Your task to perform on an android device: Go to Google Image 0: 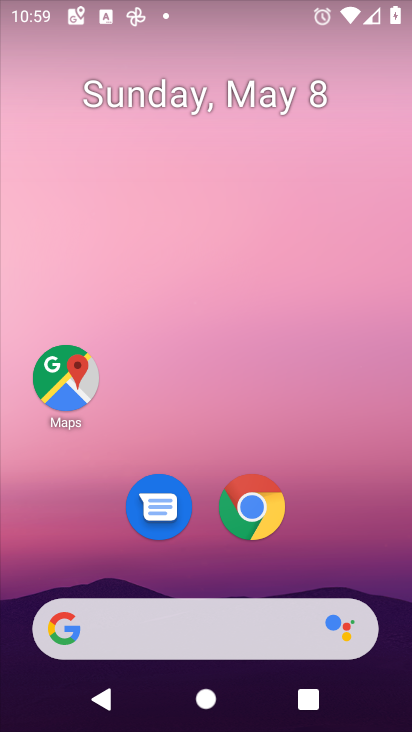
Step 0: drag from (253, 689) to (61, 22)
Your task to perform on an android device: Go to Google Image 1: 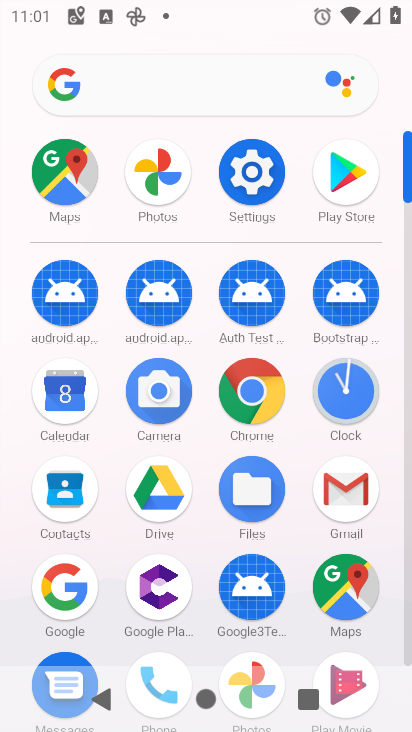
Step 1: click (39, 584)
Your task to perform on an android device: Go to Google Image 2: 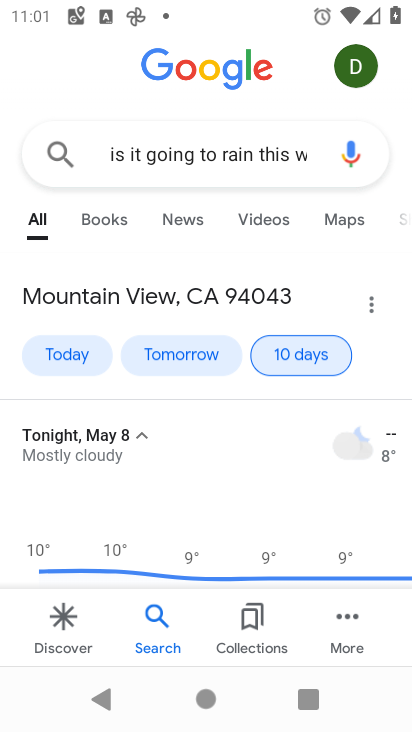
Step 2: task complete